Your task to perform on an android device: Open the calendar app, open the side menu, and click the "Day" option Image 0: 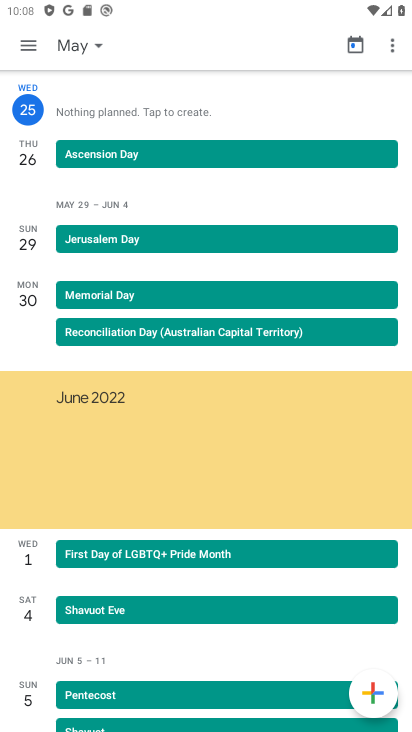
Step 0: click (27, 47)
Your task to perform on an android device: Open the calendar app, open the side menu, and click the "Day" option Image 1: 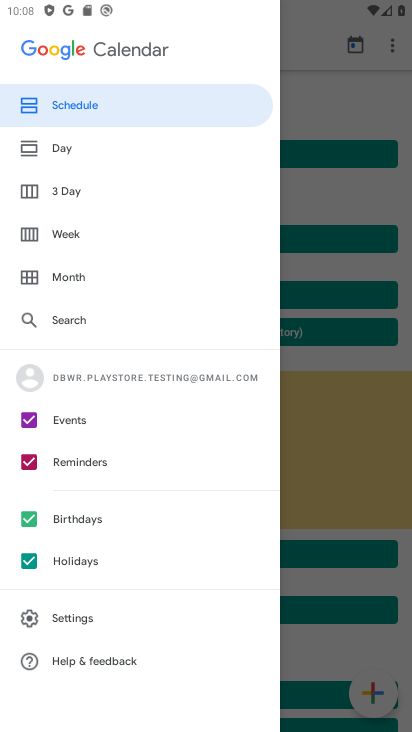
Step 1: click (52, 150)
Your task to perform on an android device: Open the calendar app, open the side menu, and click the "Day" option Image 2: 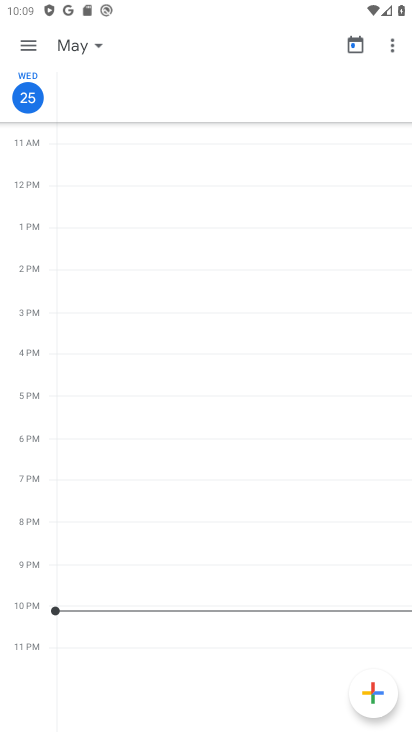
Step 2: task complete